Your task to perform on an android device: Open ESPN.com Image 0: 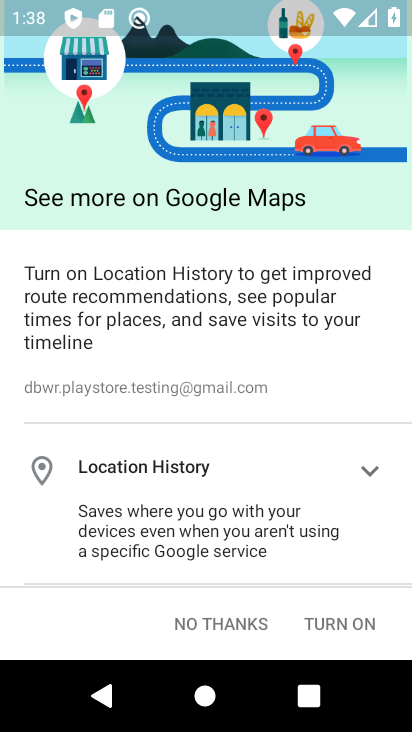
Step 0: press home button
Your task to perform on an android device: Open ESPN.com Image 1: 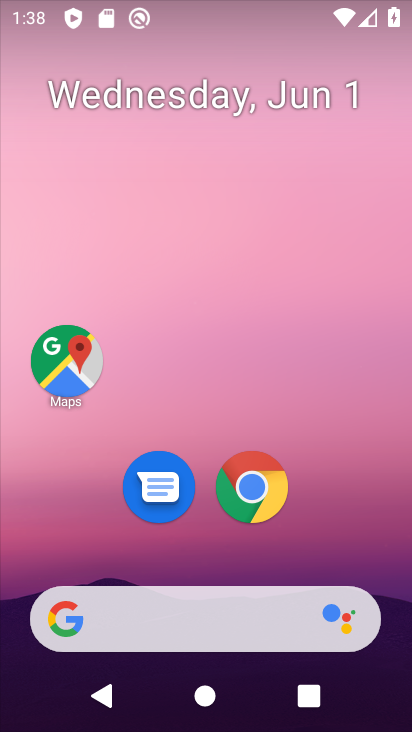
Step 1: drag from (362, 554) to (349, 169)
Your task to perform on an android device: Open ESPN.com Image 2: 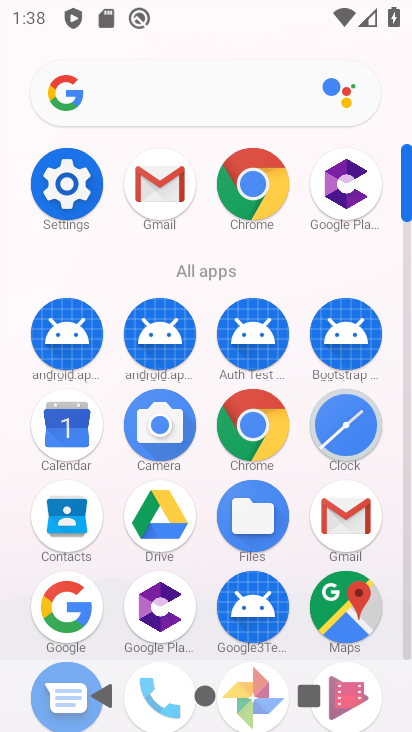
Step 2: click (255, 433)
Your task to perform on an android device: Open ESPN.com Image 3: 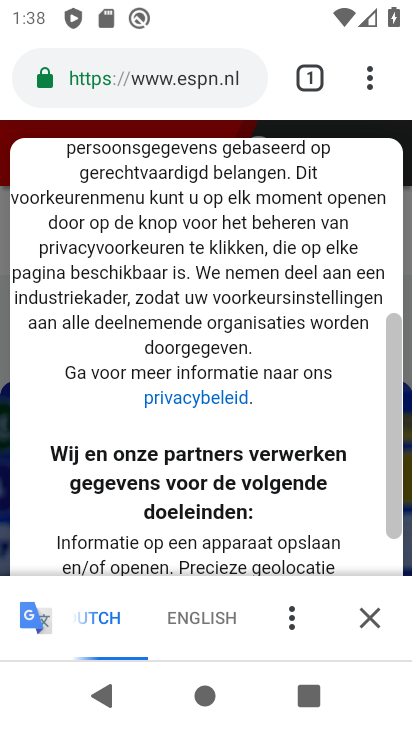
Step 3: task complete